Your task to perform on an android device: check battery use Image 0: 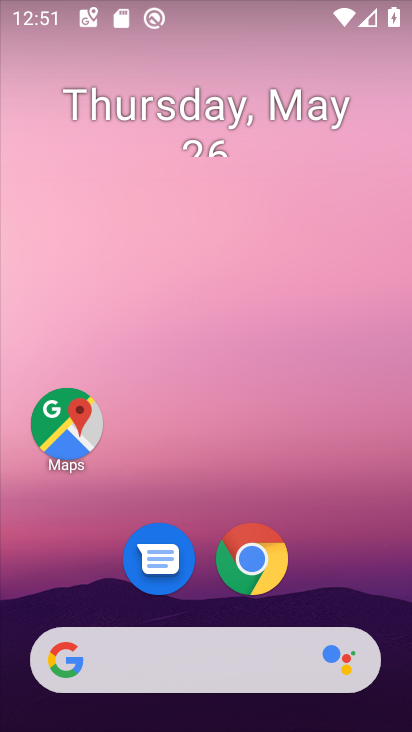
Step 0: press home button
Your task to perform on an android device: check battery use Image 1: 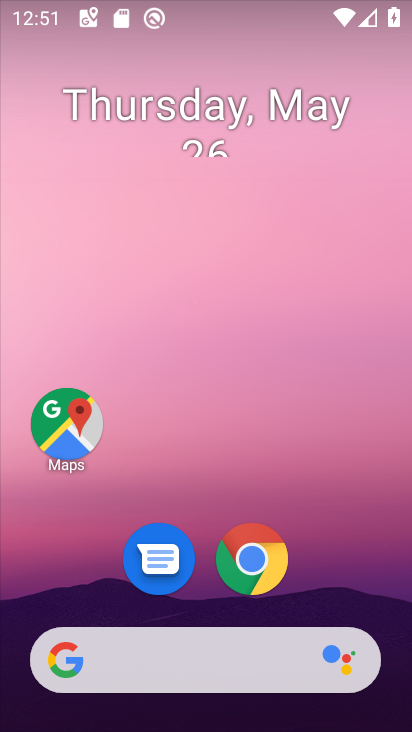
Step 1: drag from (296, 614) to (308, 197)
Your task to perform on an android device: check battery use Image 2: 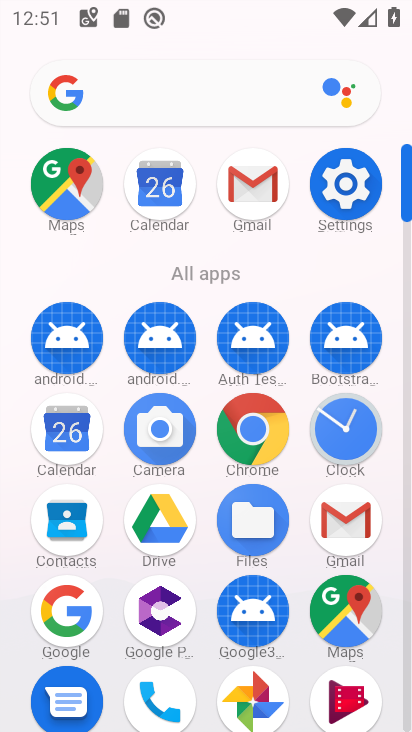
Step 2: click (359, 201)
Your task to perform on an android device: check battery use Image 3: 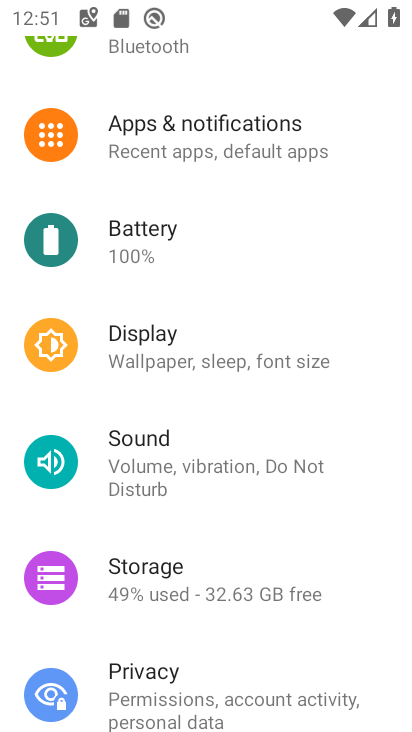
Step 3: click (131, 240)
Your task to perform on an android device: check battery use Image 4: 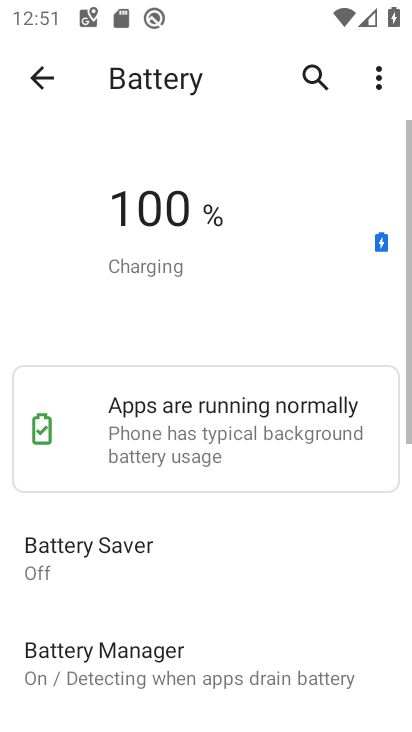
Step 4: click (378, 88)
Your task to perform on an android device: check battery use Image 5: 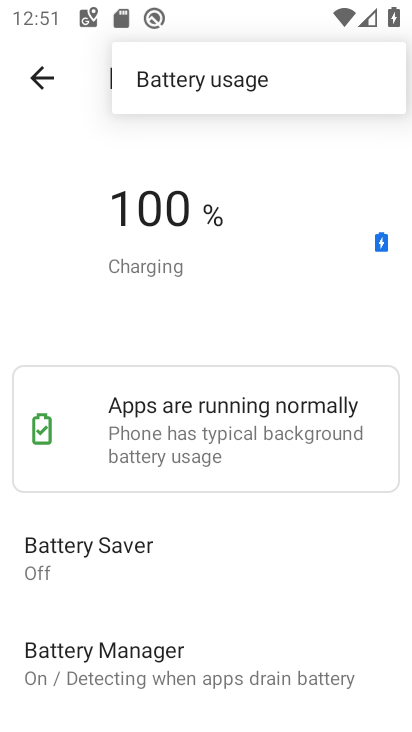
Step 5: click (187, 87)
Your task to perform on an android device: check battery use Image 6: 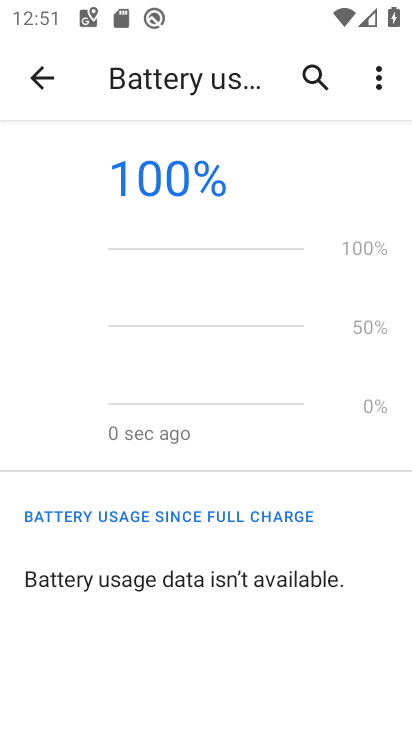
Step 6: task complete